Your task to perform on an android device: Go to privacy settings Image 0: 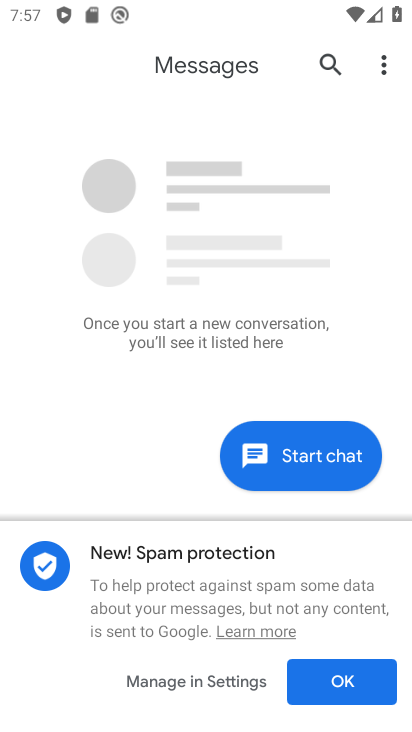
Step 0: press home button
Your task to perform on an android device: Go to privacy settings Image 1: 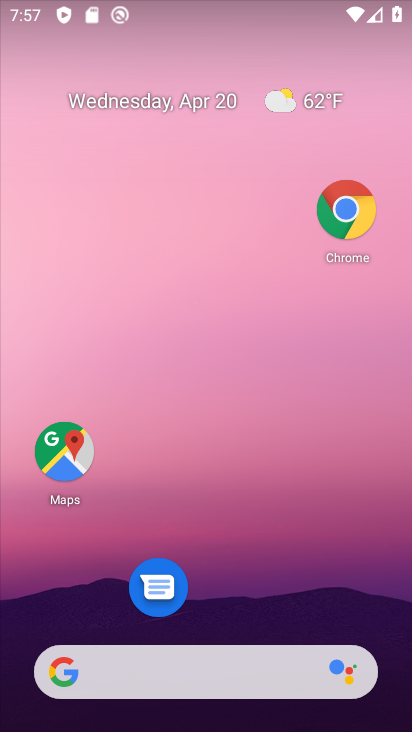
Step 1: drag from (232, 624) to (273, 11)
Your task to perform on an android device: Go to privacy settings Image 2: 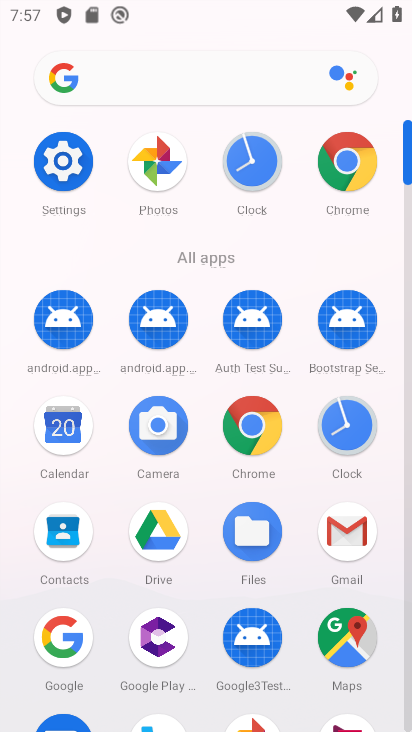
Step 2: click (83, 159)
Your task to perform on an android device: Go to privacy settings Image 3: 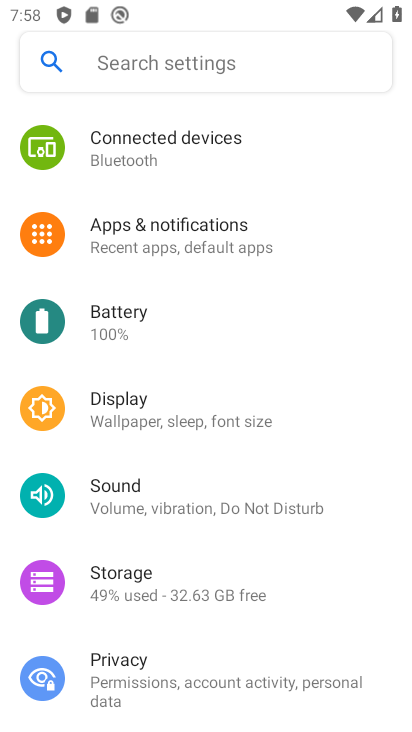
Step 3: click (99, 648)
Your task to perform on an android device: Go to privacy settings Image 4: 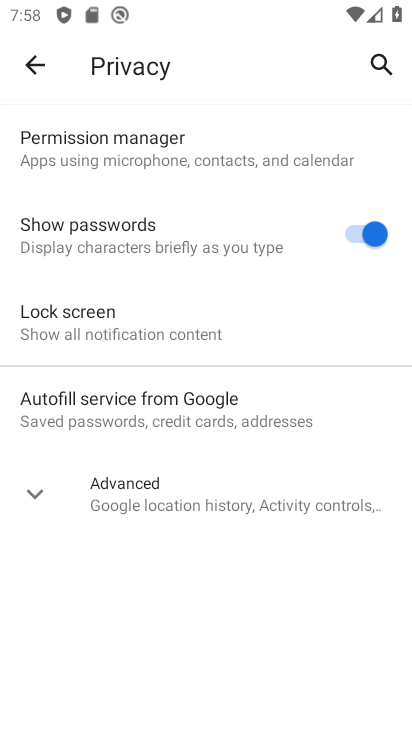
Step 4: task complete